Your task to perform on an android device: add a contact Image 0: 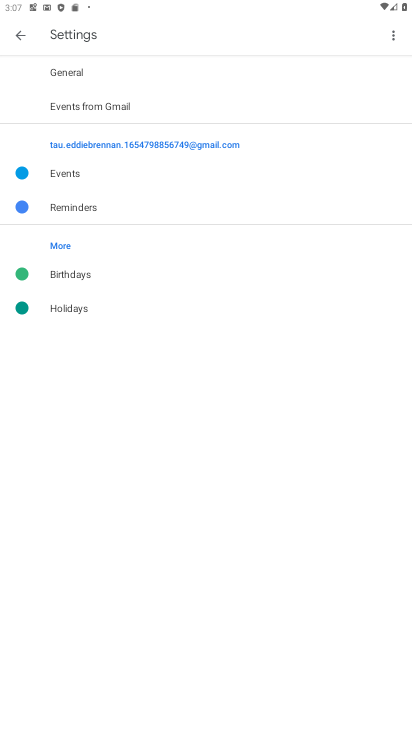
Step 0: press home button
Your task to perform on an android device: add a contact Image 1: 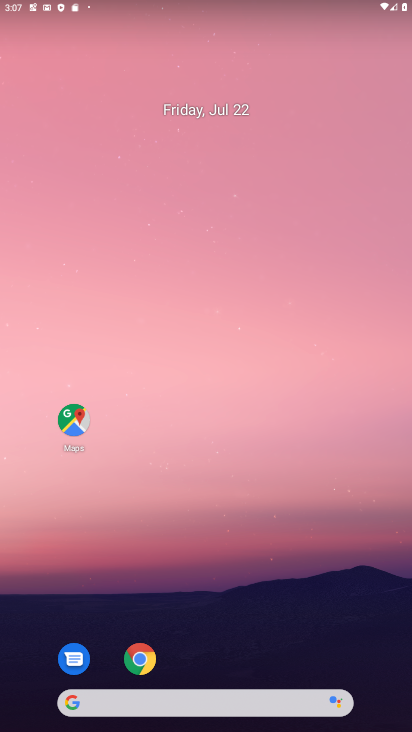
Step 1: drag from (244, 638) to (355, 67)
Your task to perform on an android device: add a contact Image 2: 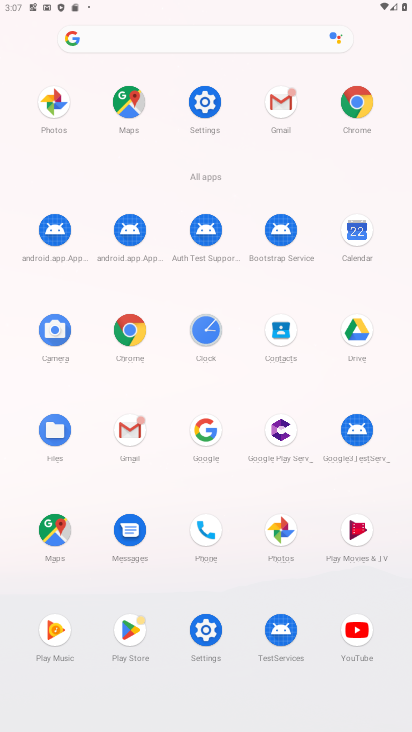
Step 2: click (285, 337)
Your task to perform on an android device: add a contact Image 3: 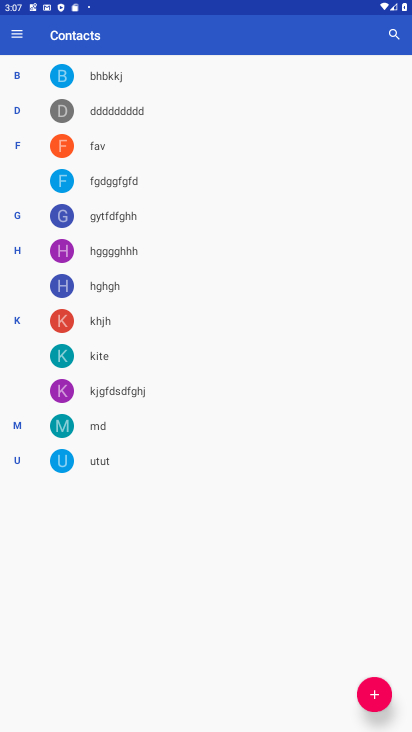
Step 3: click (371, 693)
Your task to perform on an android device: add a contact Image 4: 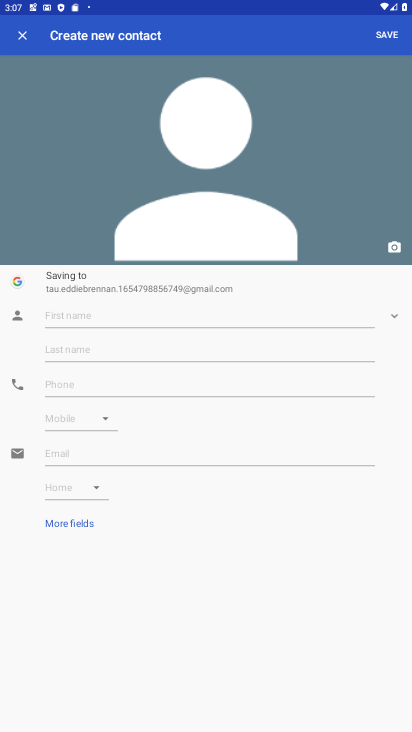
Step 4: click (371, 693)
Your task to perform on an android device: add a contact Image 5: 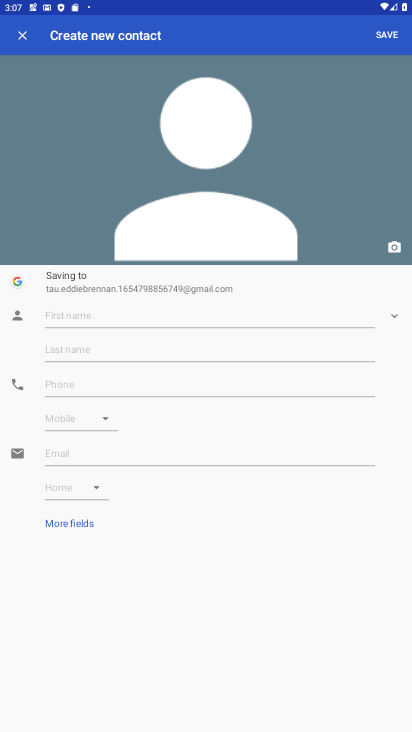
Step 5: click (210, 320)
Your task to perform on an android device: add a contact Image 6: 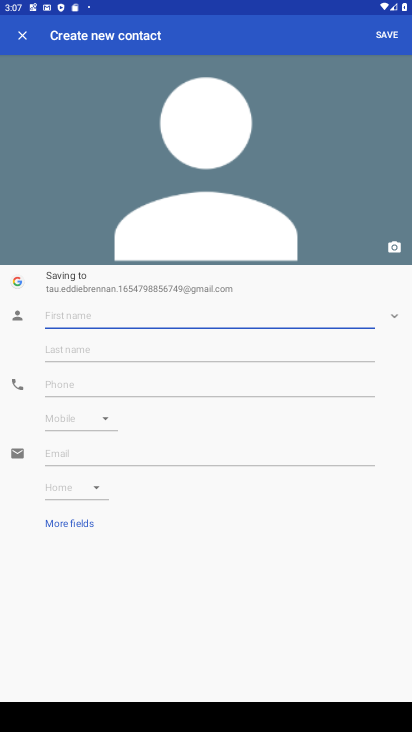
Step 6: type "mnoh"
Your task to perform on an android device: add a contact Image 7: 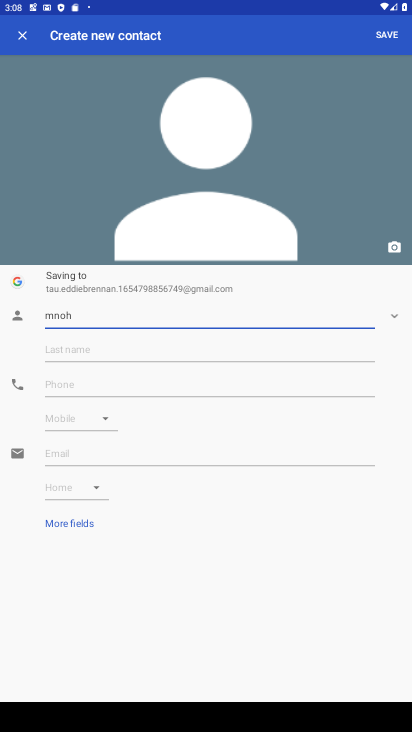
Step 7: click (81, 386)
Your task to perform on an android device: add a contact Image 8: 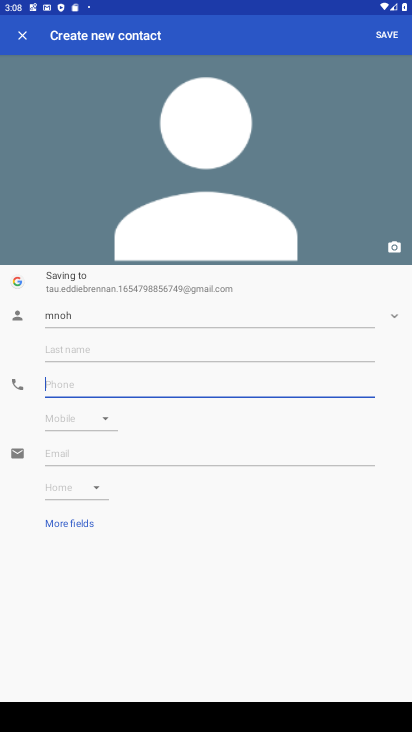
Step 8: type "98765432"
Your task to perform on an android device: add a contact Image 9: 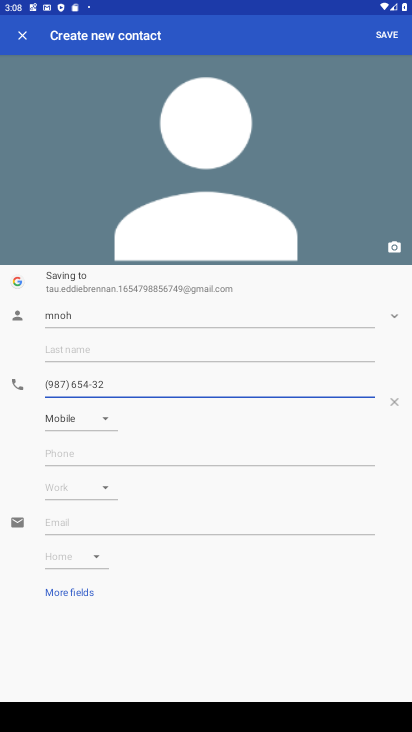
Step 9: click (397, 29)
Your task to perform on an android device: add a contact Image 10: 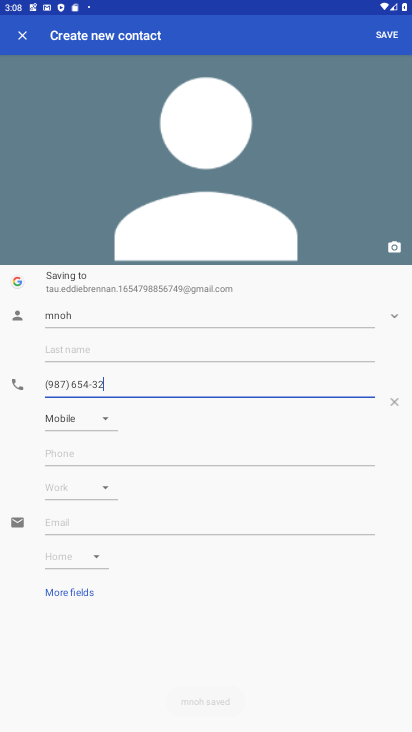
Step 10: task complete